Your task to perform on an android device: Open Youtube and go to "Your channel" Image 0: 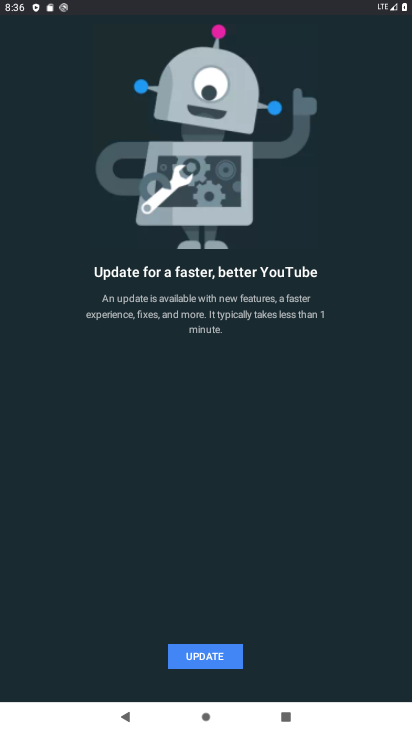
Step 0: press back button
Your task to perform on an android device: Open Youtube and go to "Your channel" Image 1: 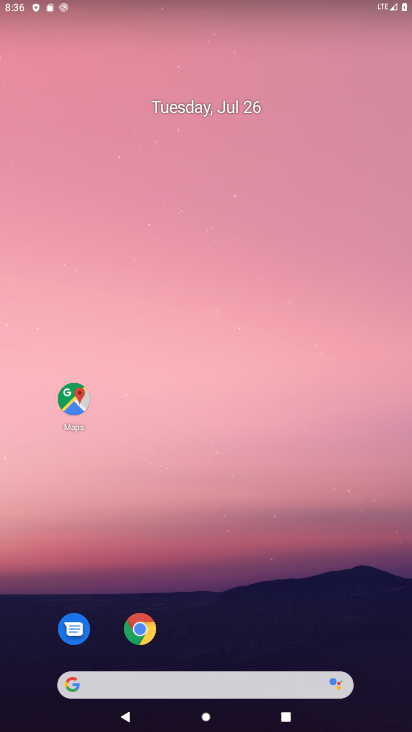
Step 1: drag from (266, 658) to (312, 12)
Your task to perform on an android device: Open Youtube and go to "Your channel" Image 2: 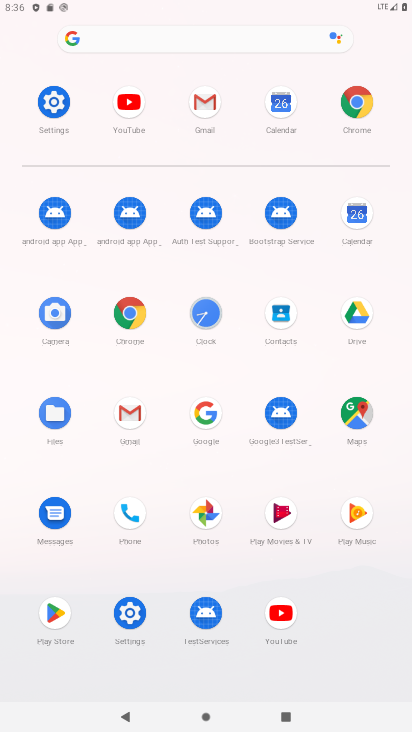
Step 2: click (284, 610)
Your task to perform on an android device: Open Youtube and go to "Your channel" Image 3: 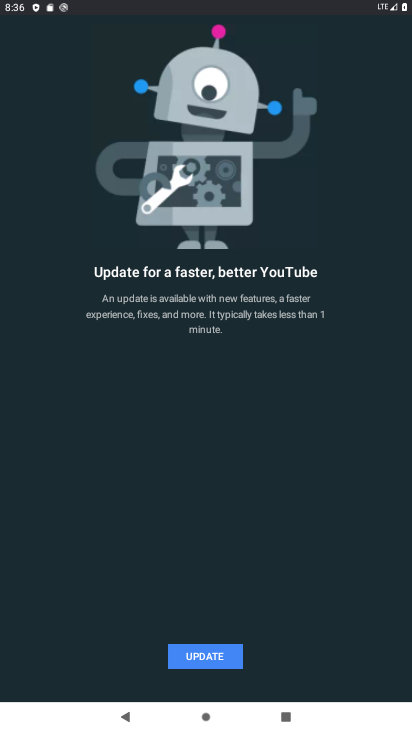
Step 3: click (221, 661)
Your task to perform on an android device: Open Youtube and go to "Your channel" Image 4: 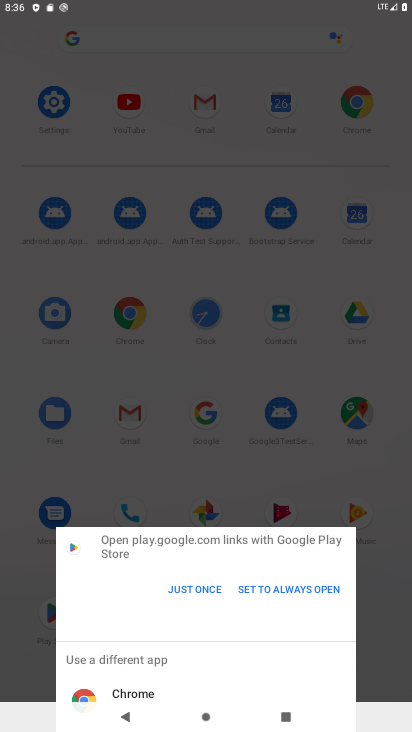
Step 4: click (183, 581)
Your task to perform on an android device: Open Youtube and go to "Your channel" Image 5: 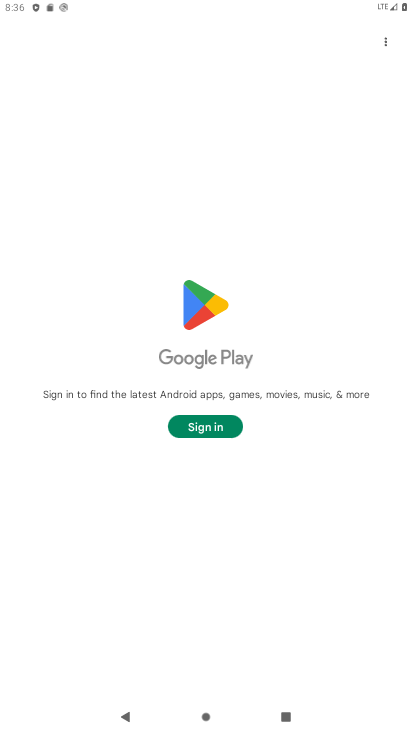
Step 5: task complete